Your task to perform on an android device: turn pop-ups off in chrome Image 0: 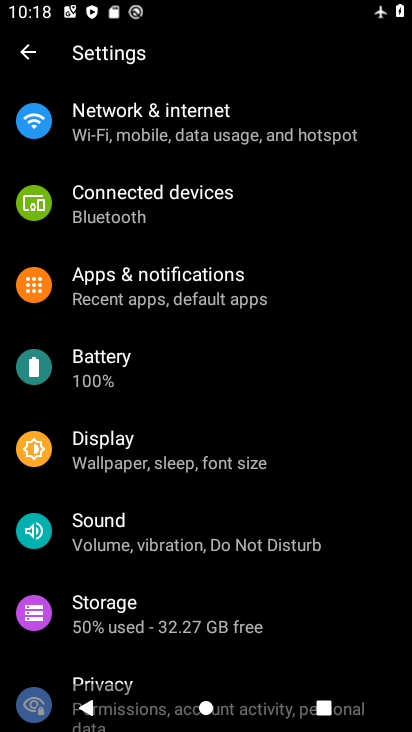
Step 0: drag from (210, 582) to (250, 213)
Your task to perform on an android device: turn pop-ups off in chrome Image 1: 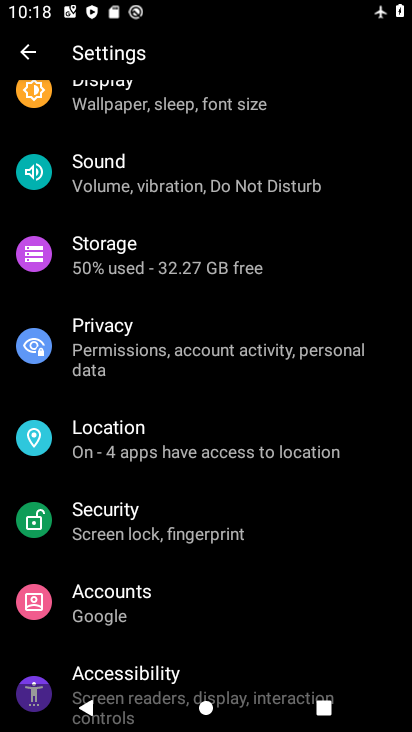
Step 1: press home button
Your task to perform on an android device: turn pop-ups off in chrome Image 2: 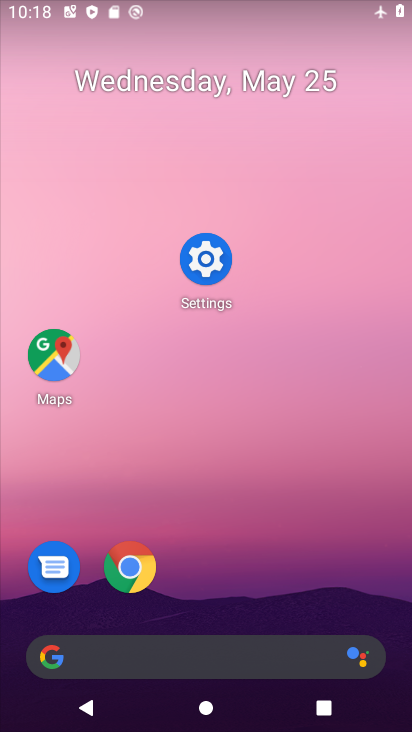
Step 2: drag from (239, 567) to (293, 198)
Your task to perform on an android device: turn pop-ups off in chrome Image 3: 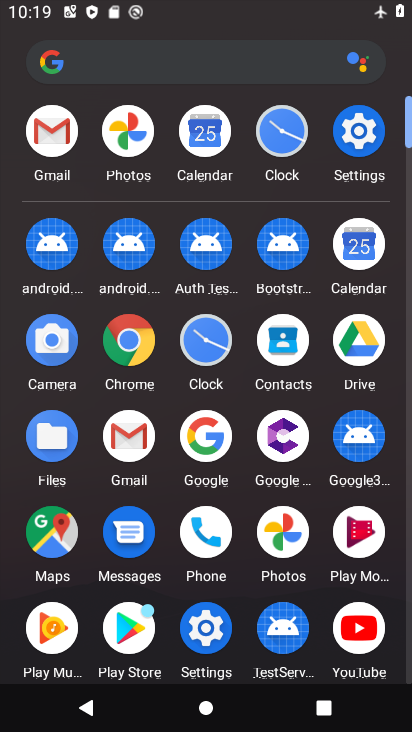
Step 3: click (144, 333)
Your task to perform on an android device: turn pop-ups off in chrome Image 4: 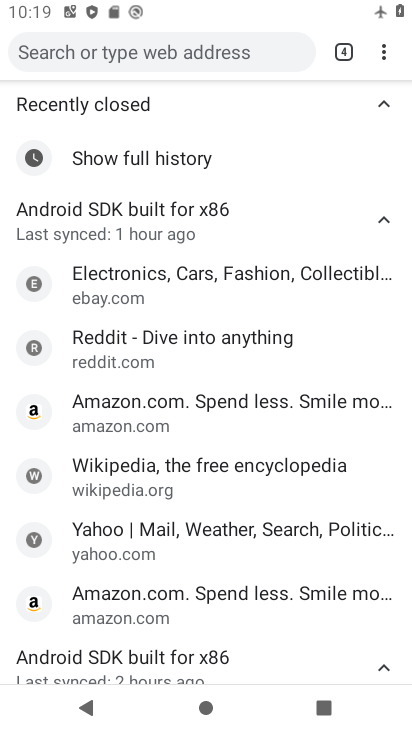
Step 4: click (380, 60)
Your task to perform on an android device: turn pop-ups off in chrome Image 5: 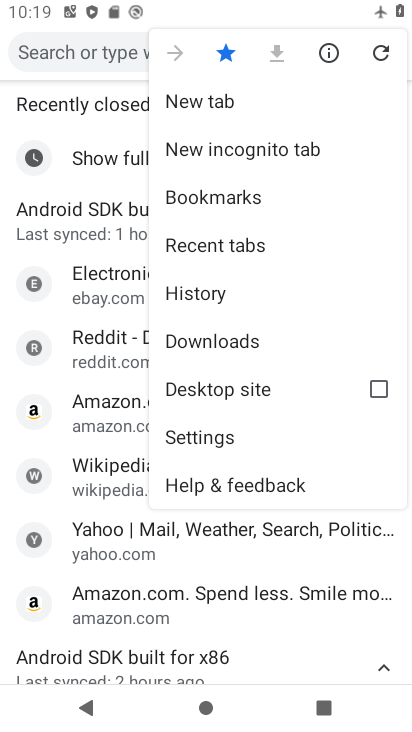
Step 5: click (249, 425)
Your task to perform on an android device: turn pop-ups off in chrome Image 6: 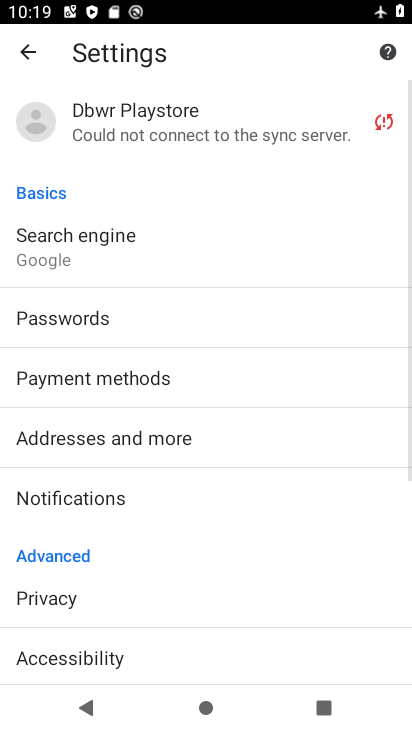
Step 6: drag from (170, 607) to (254, 183)
Your task to perform on an android device: turn pop-ups off in chrome Image 7: 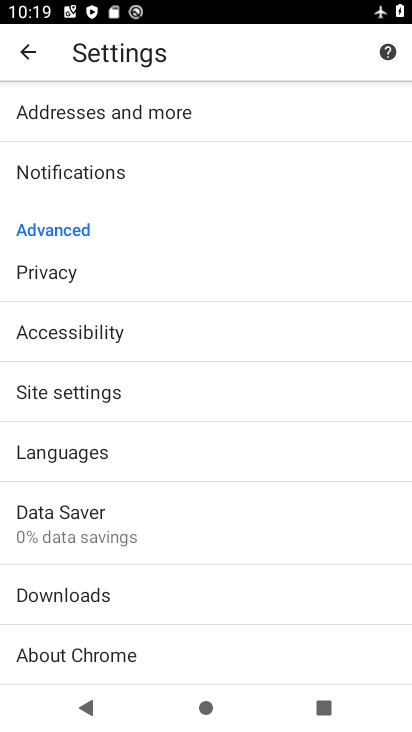
Step 7: click (127, 386)
Your task to perform on an android device: turn pop-ups off in chrome Image 8: 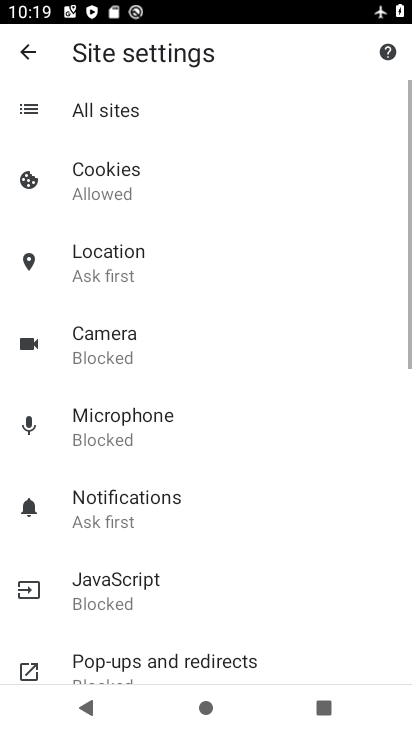
Step 8: click (185, 579)
Your task to perform on an android device: turn pop-ups off in chrome Image 9: 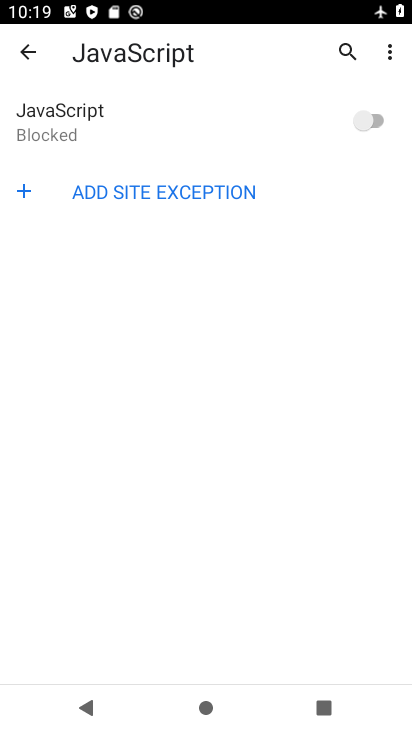
Step 9: task complete